Your task to perform on an android device: see sites visited before in the chrome app Image 0: 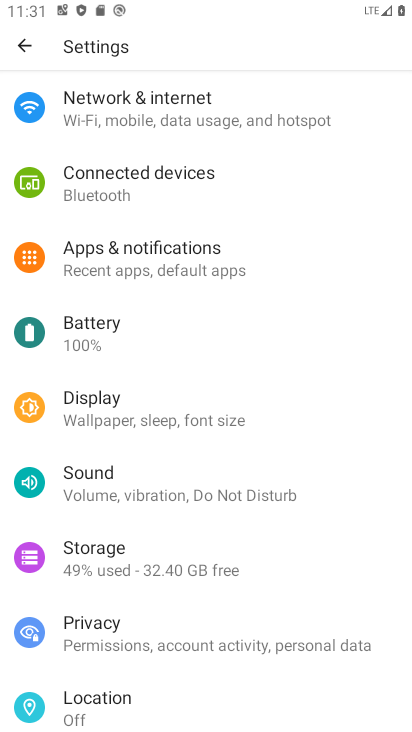
Step 0: press home button
Your task to perform on an android device: see sites visited before in the chrome app Image 1: 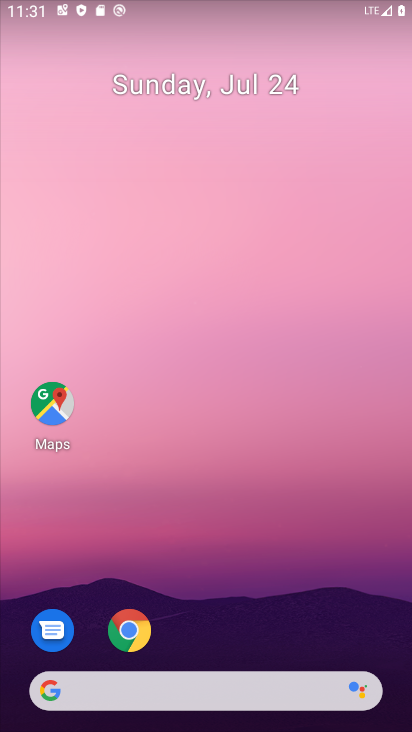
Step 1: click (125, 647)
Your task to perform on an android device: see sites visited before in the chrome app Image 2: 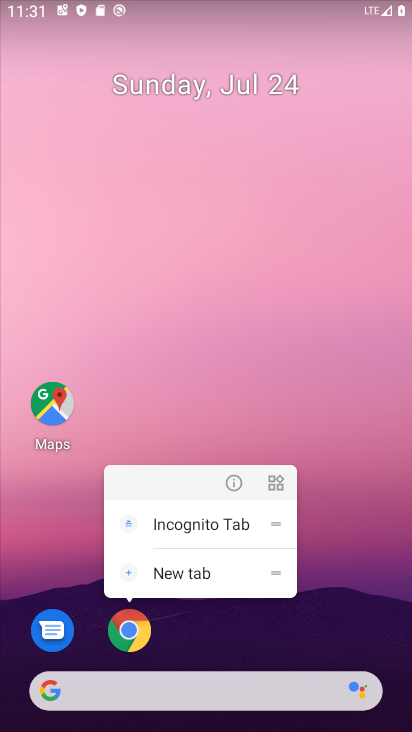
Step 2: click (133, 645)
Your task to perform on an android device: see sites visited before in the chrome app Image 3: 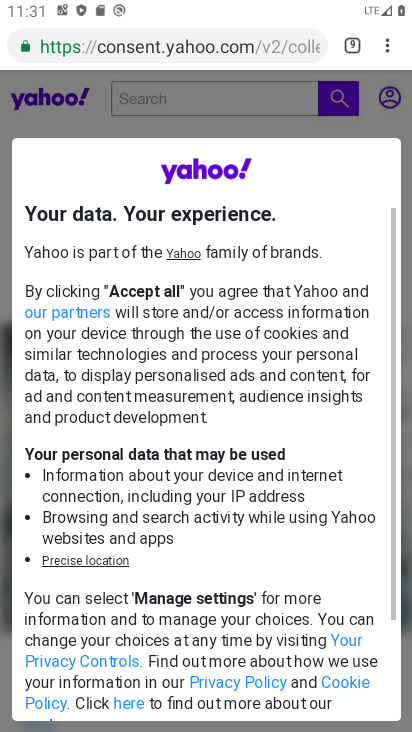
Step 3: click (392, 41)
Your task to perform on an android device: see sites visited before in the chrome app Image 4: 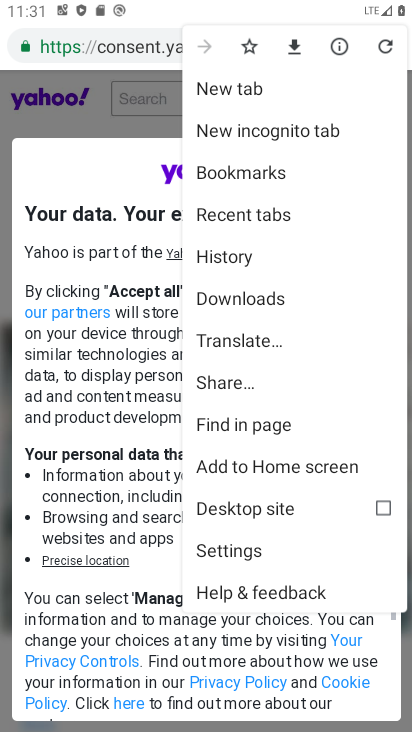
Step 4: click (243, 228)
Your task to perform on an android device: see sites visited before in the chrome app Image 5: 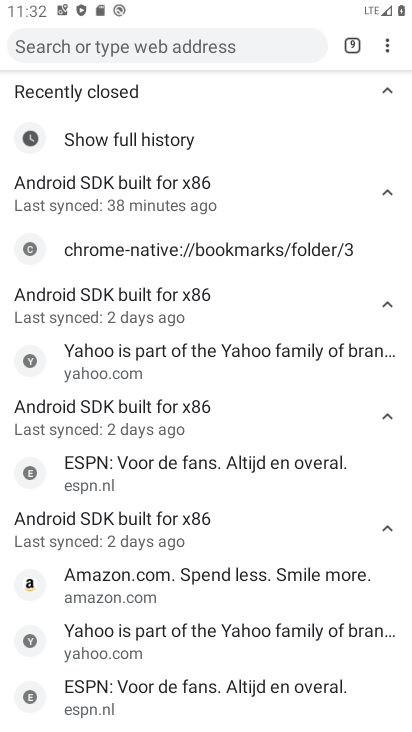
Step 5: task complete